Your task to perform on an android device: open app "Google Play Games" Image 0: 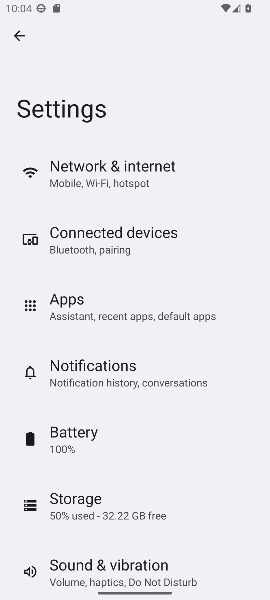
Step 0: press home button
Your task to perform on an android device: open app "Google Play Games" Image 1: 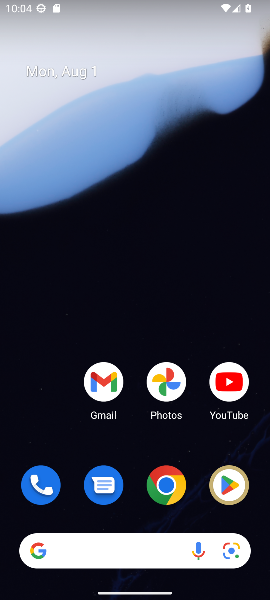
Step 1: drag from (126, 537) to (141, 70)
Your task to perform on an android device: open app "Google Play Games" Image 2: 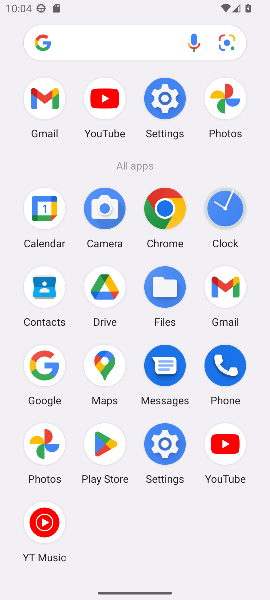
Step 2: click (112, 438)
Your task to perform on an android device: open app "Google Play Games" Image 3: 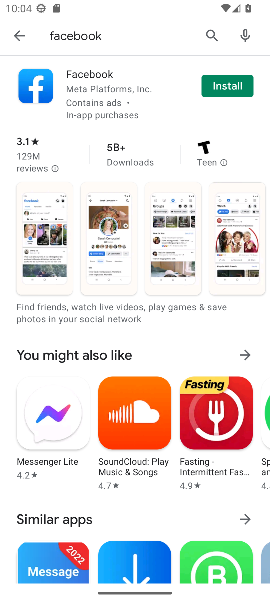
Step 3: click (206, 34)
Your task to perform on an android device: open app "Google Play Games" Image 4: 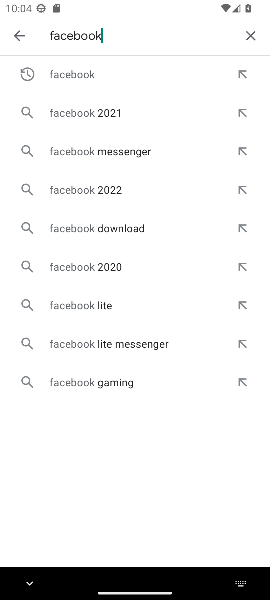
Step 4: click (250, 35)
Your task to perform on an android device: open app "Google Play Games" Image 5: 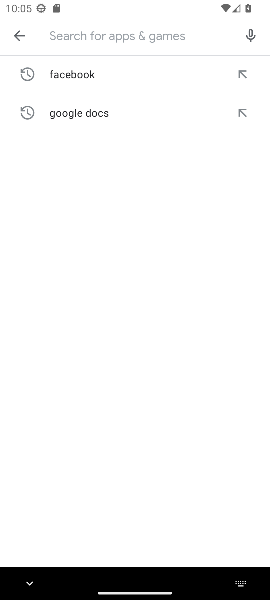
Step 5: type "google play games"
Your task to perform on an android device: open app "Google Play Games" Image 6: 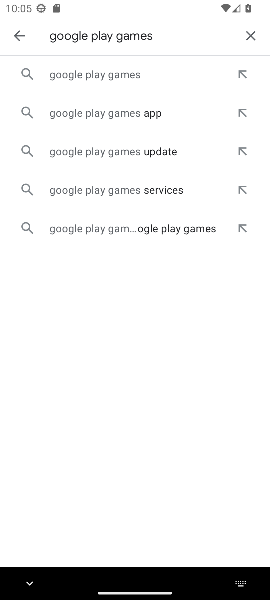
Step 6: click (135, 76)
Your task to perform on an android device: open app "Google Play Games" Image 7: 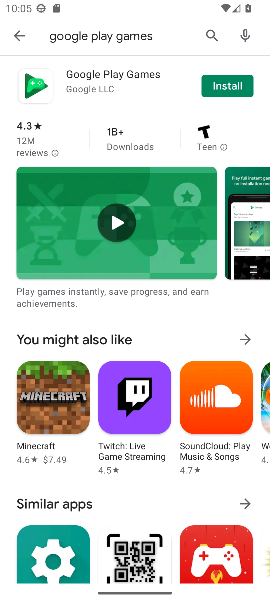
Step 7: task complete